Your task to perform on an android device: Go to notification settings Image 0: 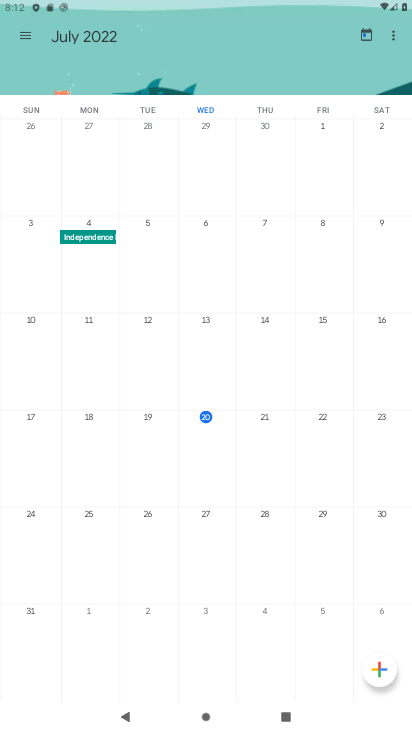
Step 0: press home button
Your task to perform on an android device: Go to notification settings Image 1: 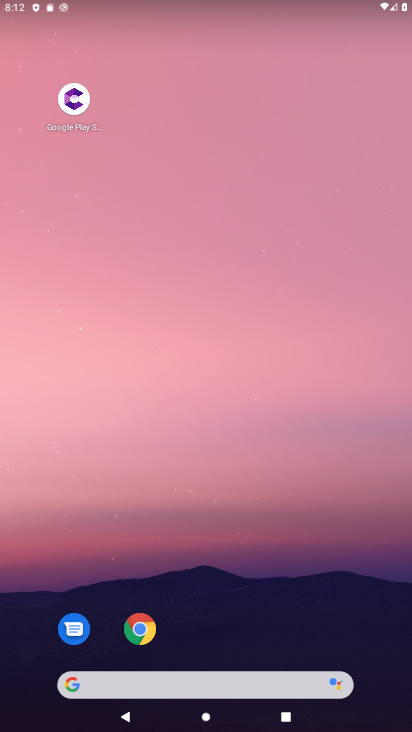
Step 1: drag from (273, 593) to (238, 156)
Your task to perform on an android device: Go to notification settings Image 2: 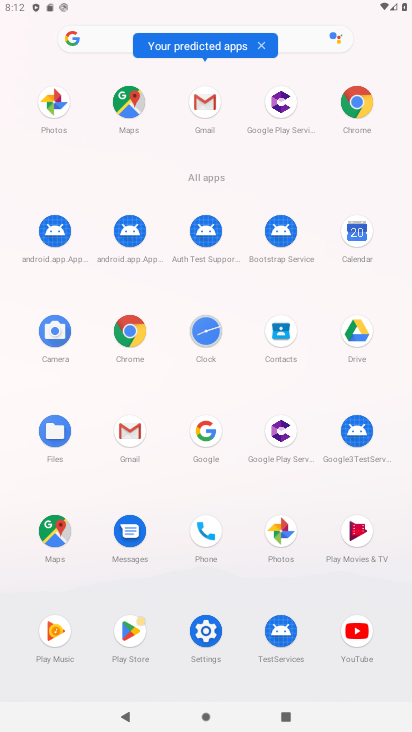
Step 2: click (203, 624)
Your task to perform on an android device: Go to notification settings Image 3: 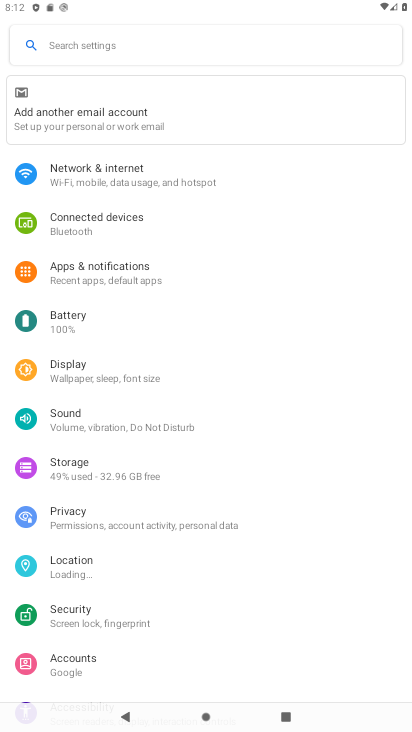
Step 3: click (145, 267)
Your task to perform on an android device: Go to notification settings Image 4: 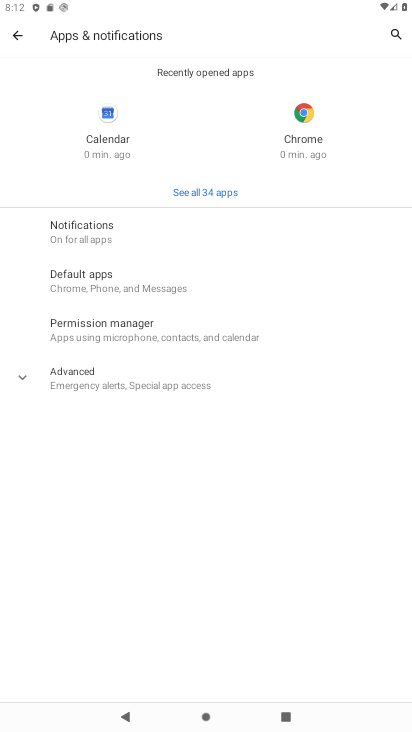
Step 4: click (192, 232)
Your task to perform on an android device: Go to notification settings Image 5: 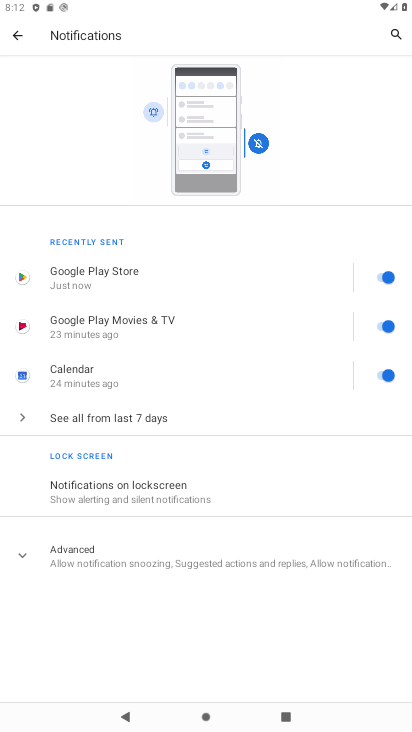
Step 5: task complete